Your task to perform on an android device: open sync settings in chrome Image 0: 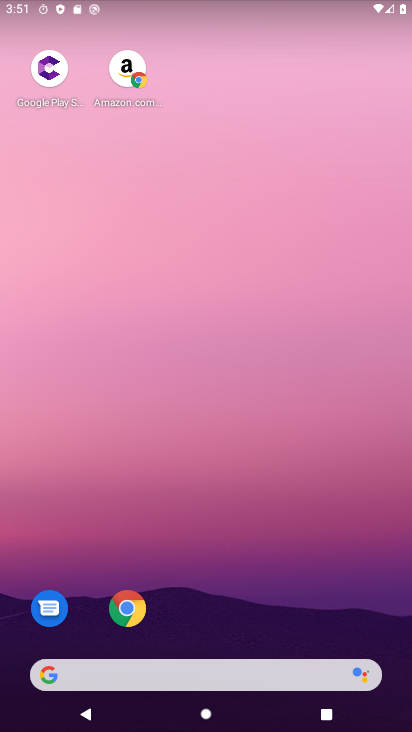
Step 0: drag from (227, 675) to (192, 16)
Your task to perform on an android device: open sync settings in chrome Image 1: 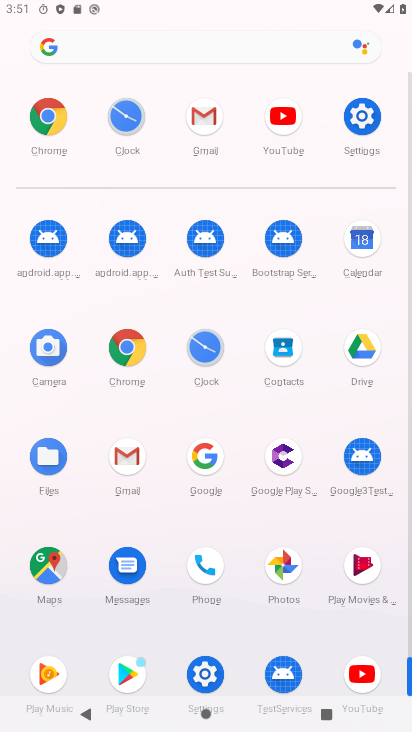
Step 1: click (119, 346)
Your task to perform on an android device: open sync settings in chrome Image 2: 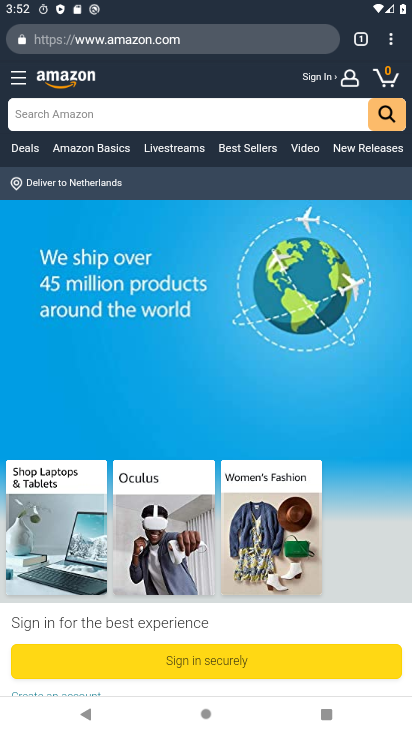
Step 2: click (394, 37)
Your task to perform on an android device: open sync settings in chrome Image 3: 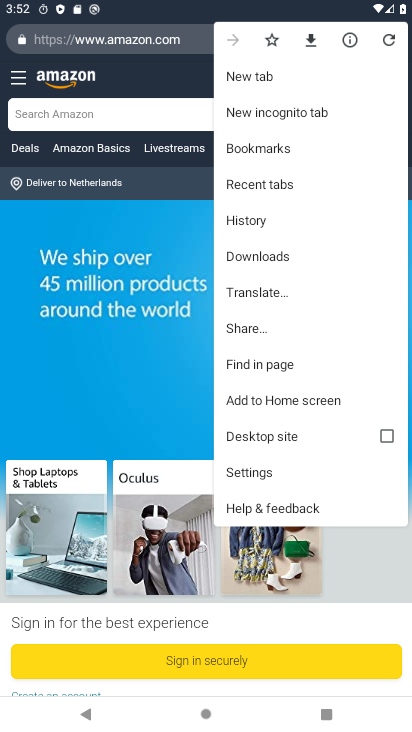
Step 3: click (256, 474)
Your task to perform on an android device: open sync settings in chrome Image 4: 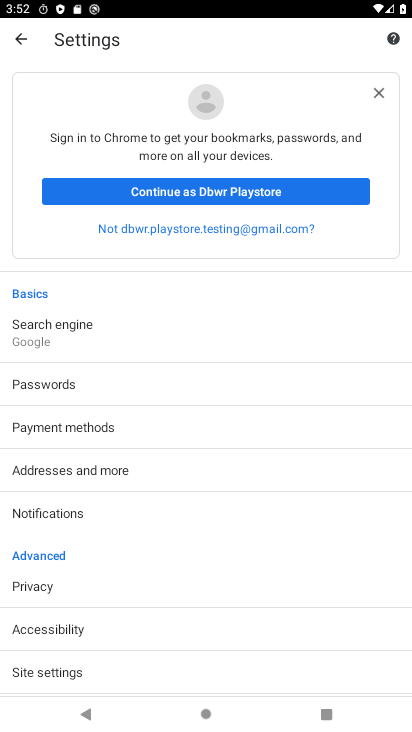
Step 4: drag from (191, 667) to (107, 115)
Your task to perform on an android device: open sync settings in chrome Image 5: 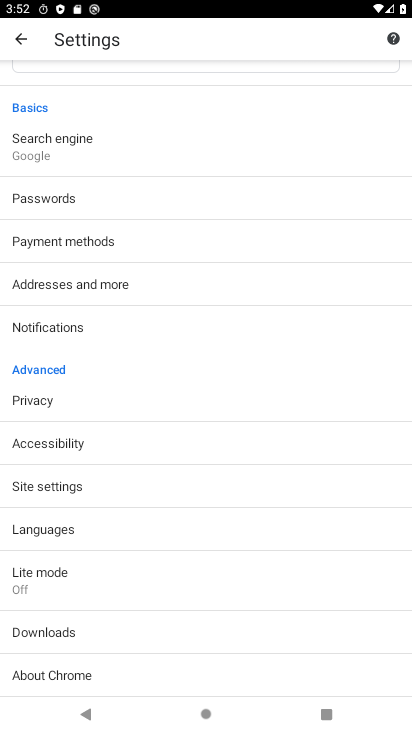
Step 5: click (65, 496)
Your task to perform on an android device: open sync settings in chrome Image 6: 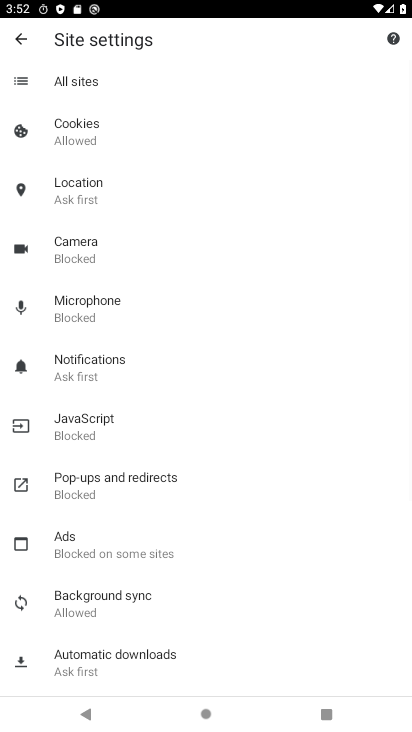
Step 6: drag from (244, 551) to (233, 153)
Your task to perform on an android device: open sync settings in chrome Image 7: 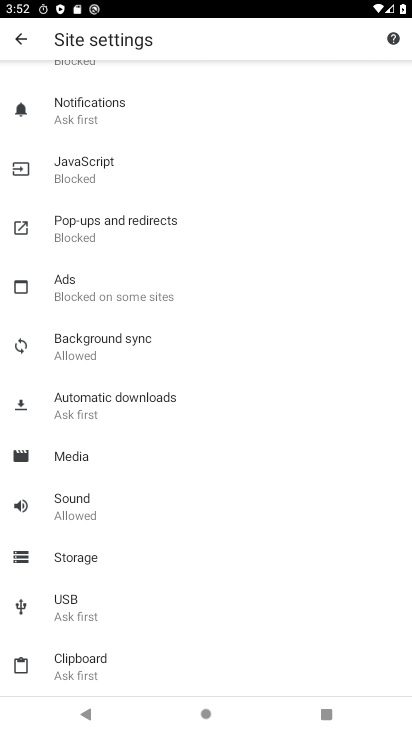
Step 7: click (126, 346)
Your task to perform on an android device: open sync settings in chrome Image 8: 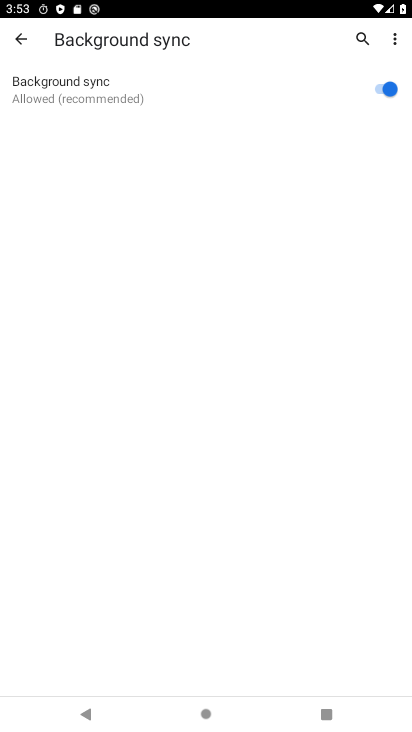
Step 8: task complete